Your task to perform on an android device: set an alarm Image 0: 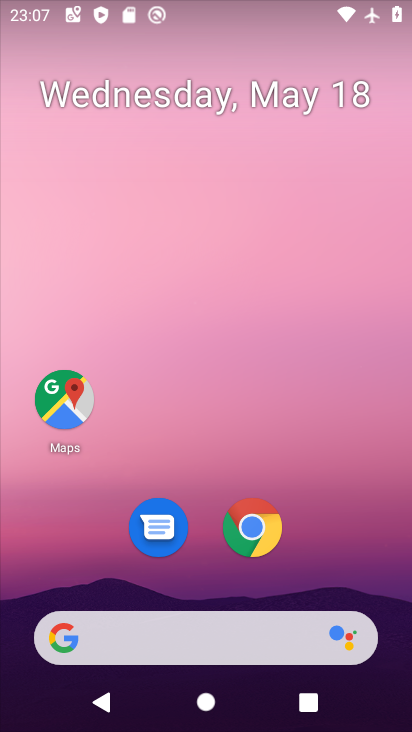
Step 0: drag from (381, 514) to (341, 1)
Your task to perform on an android device: set an alarm Image 1: 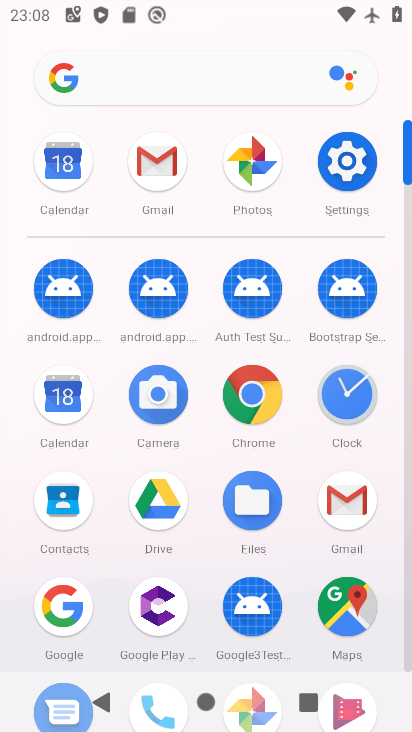
Step 1: click (354, 387)
Your task to perform on an android device: set an alarm Image 2: 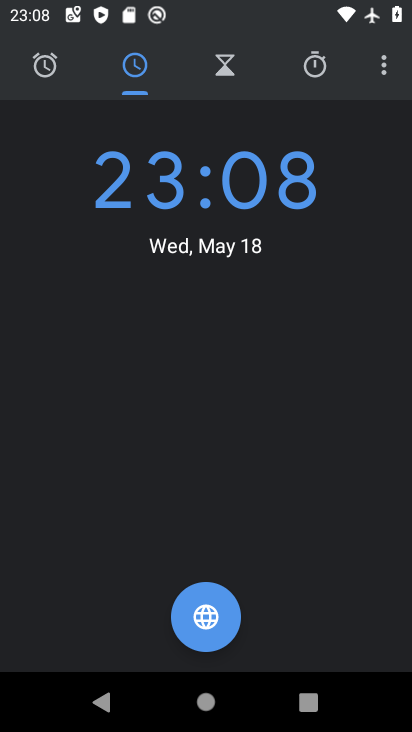
Step 2: click (47, 74)
Your task to perform on an android device: set an alarm Image 3: 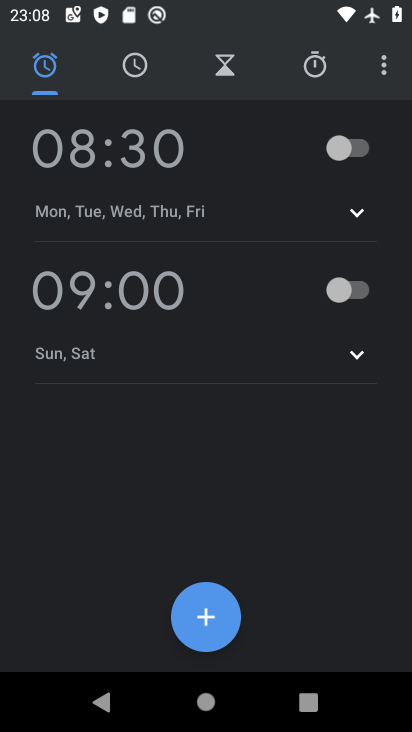
Step 3: click (369, 130)
Your task to perform on an android device: set an alarm Image 4: 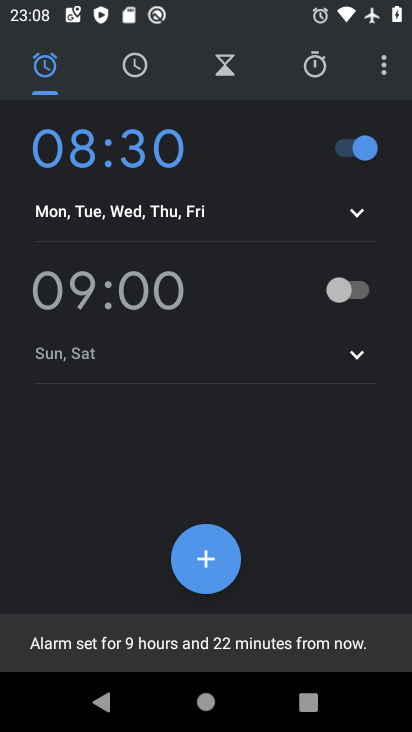
Step 4: task complete